Your task to perform on an android device: Search for pizza restaurants on Maps Image 0: 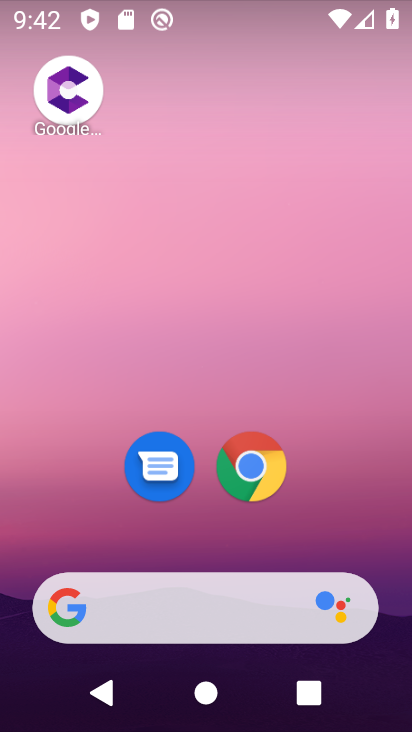
Step 0: drag from (231, 534) to (165, 72)
Your task to perform on an android device: Search for pizza restaurants on Maps Image 1: 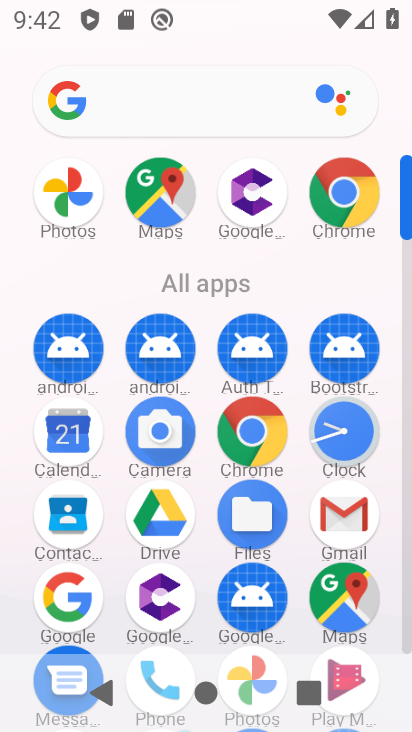
Step 1: click (167, 187)
Your task to perform on an android device: Search for pizza restaurants on Maps Image 2: 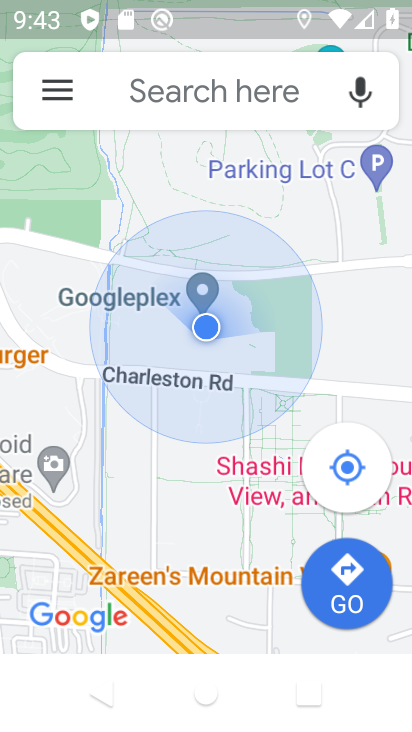
Step 2: click (207, 75)
Your task to perform on an android device: Search for pizza restaurants on Maps Image 3: 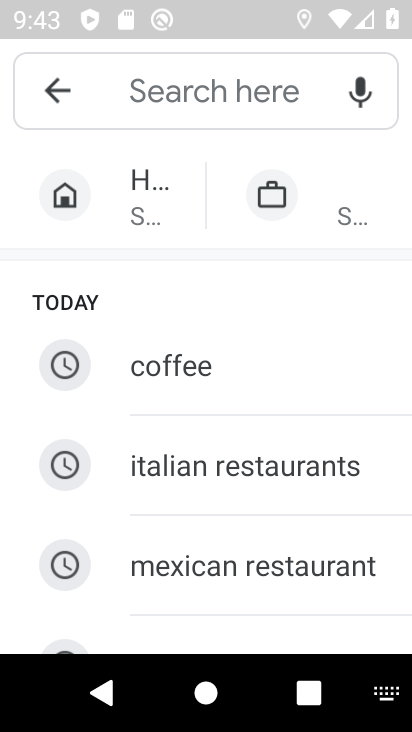
Step 3: type "pizza restaurants"
Your task to perform on an android device: Search for pizza restaurants on Maps Image 4: 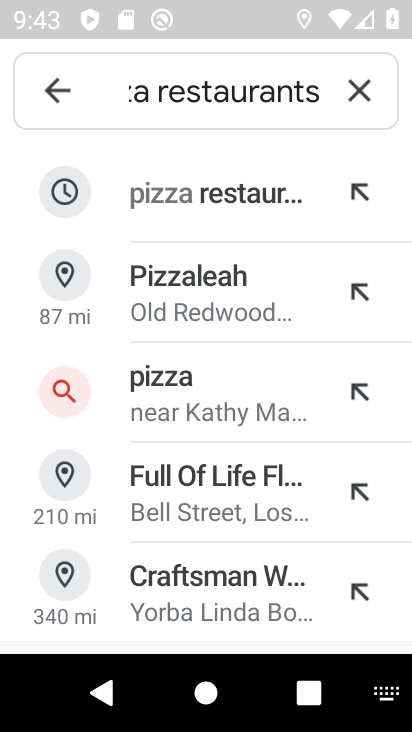
Step 4: task complete